Your task to perform on an android device: turn off smart reply in the gmail app Image 0: 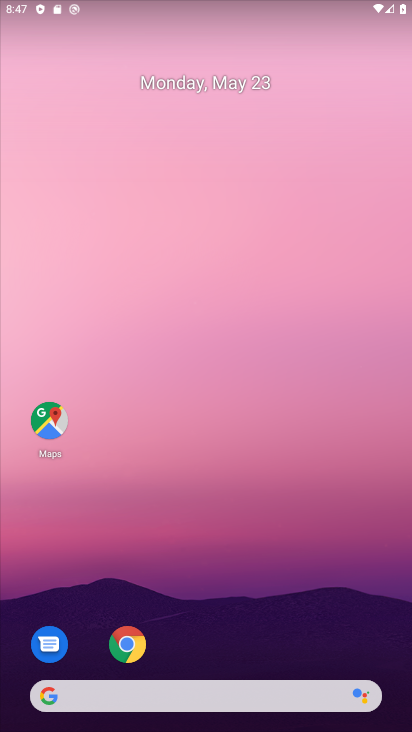
Step 0: drag from (215, 663) to (235, 104)
Your task to perform on an android device: turn off smart reply in the gmail app Image 1: 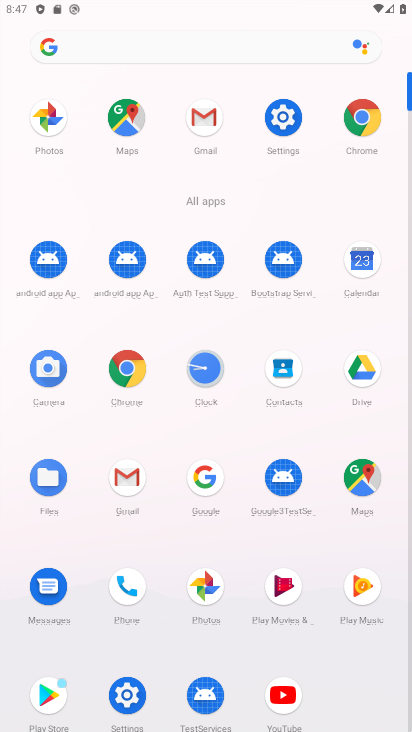
Step 1: click (124, 473)
Your task to perform on an android device: turn off smart reply in the gmail app Image 2: 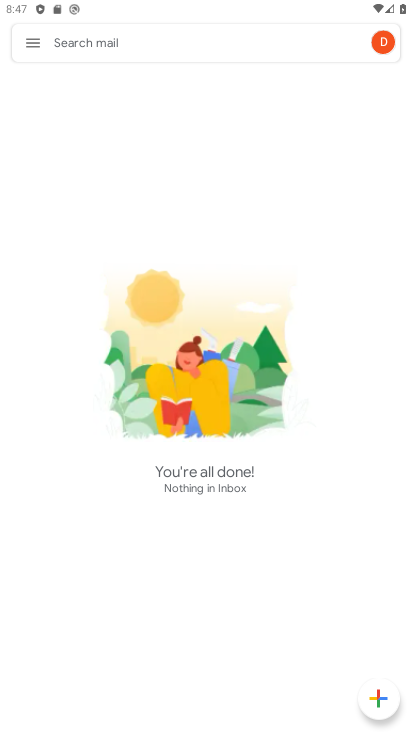
Step 2: click (27, 34)
Your task to perform on an android device: turn off smart reply in the gmail app Image 3: 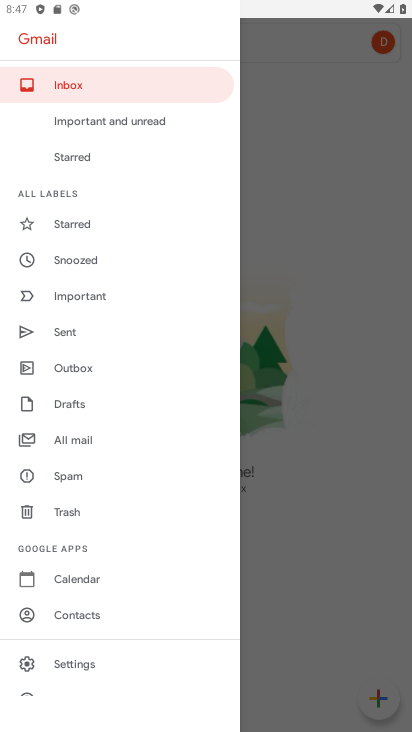
Step 3: click (65, 656)
Your task to perform on an android device: turn off smart reply in the gmail app Image 4: 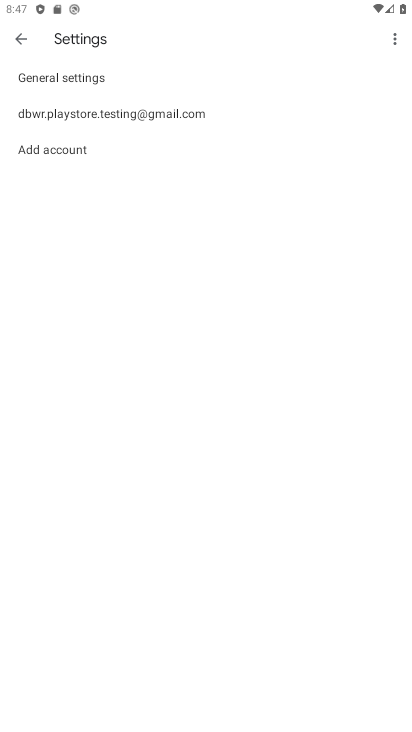
Step 4: click (122, 100)
Your task to perform on an android device: turn off smart reply in the gmail app Image 5: 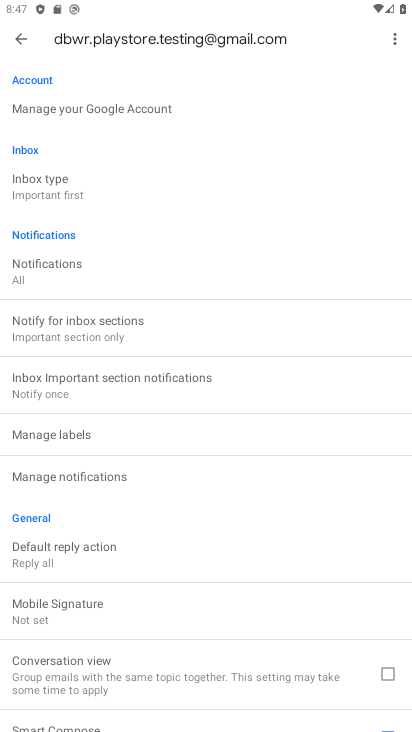
Step 5: drag from (142, 637) to (187, 99)
Your task to perform on an android device: turn off smart reply in the gmail app Image 6: 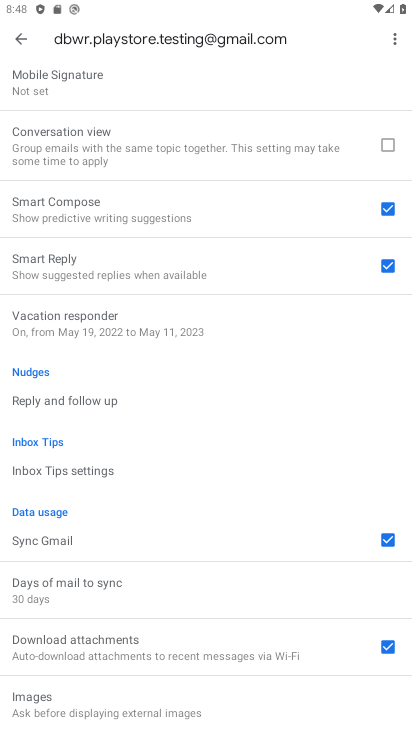
Step 6: click (388, 259)
Your task to perform on an android device: turn off smart reply in the gmail app Image 7: 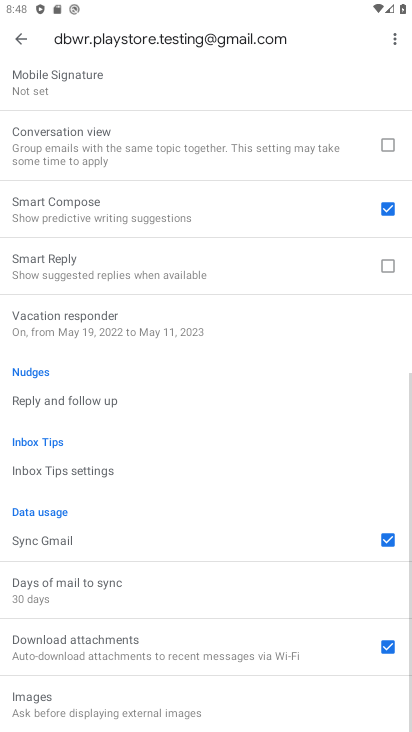
Step 7: task complete